Your task to perform on an android device: open a bookmark in the chrome app Image 0: 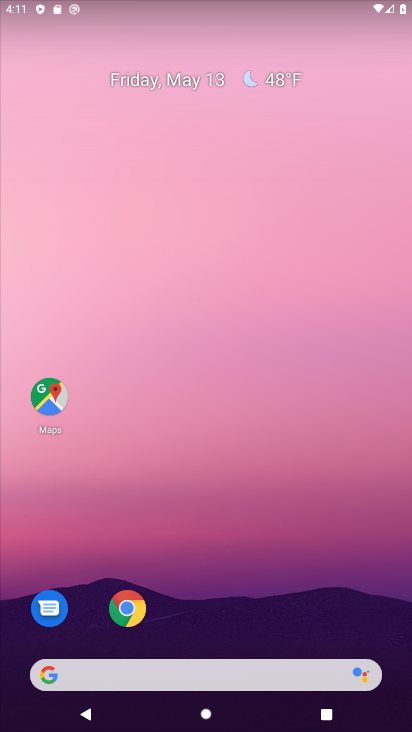
Step 0: click (128, 608)
Your task to perform on an android device: open a bookmark in the chrome app Image 1: 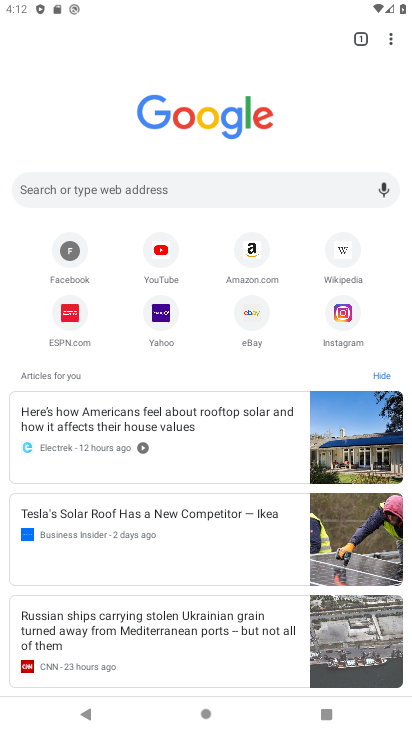
Step 1: click (389, 42)
Your task to perform on an android device: open a bookmark in the chrome app Image 2: 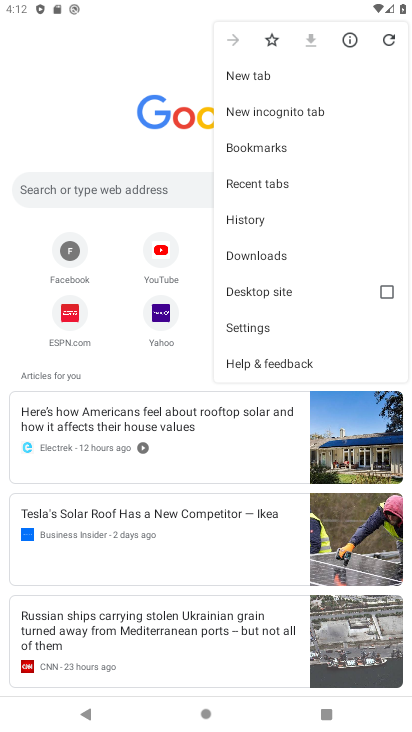
Step 2: click (269, 145)
Your task to perform on an android device: open a bookmark in the chrome app Image 3: 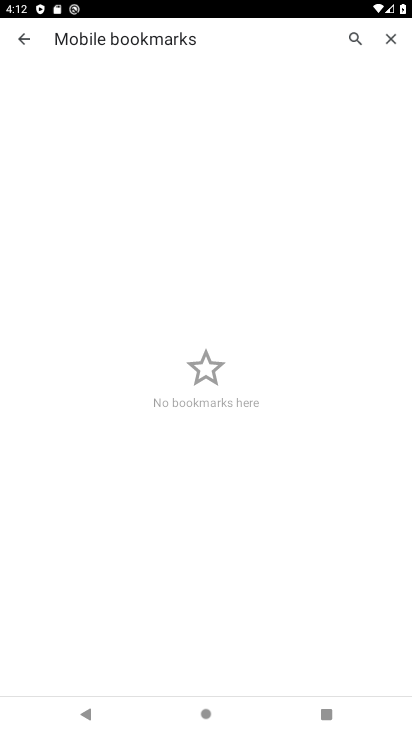
Step 3: task complete